Your task to perform on an android device: open app "Adobe Acrobat Reader" (install if not already installed) and go to login screen Image 0: 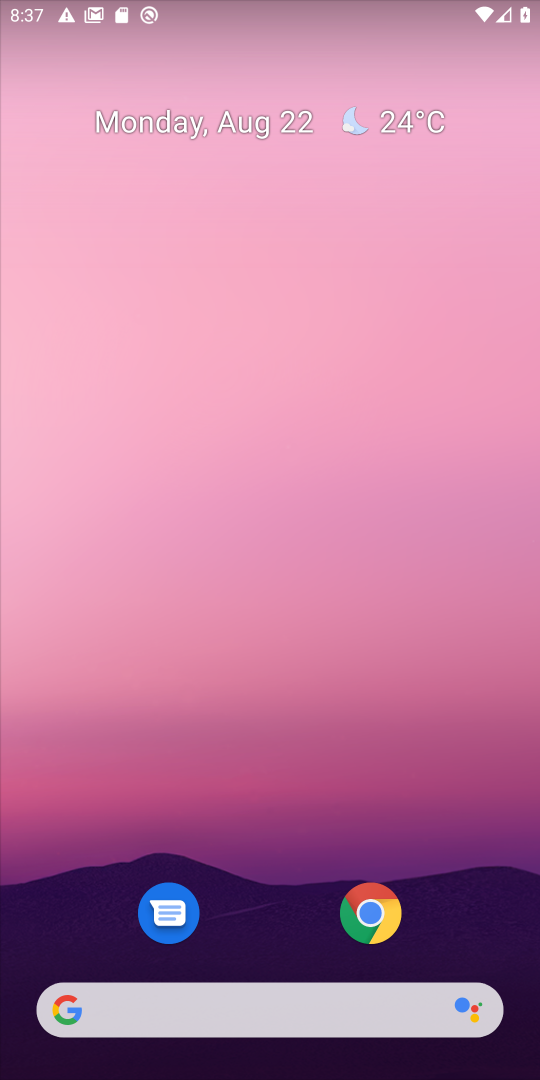
Step 0: drag from (261, 1021) to (336, 142)
Your task to perform on an android device: open app "Adobe Acrobat Reader" (install if not already installed) and go to login screen Image 1: 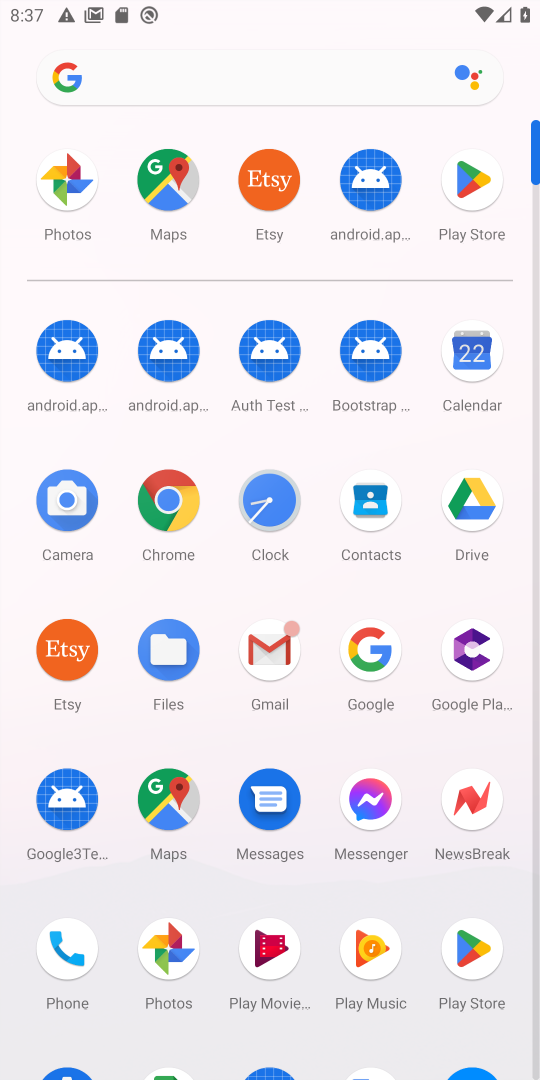
Step 1: click (490, 208)
Your task to perform on an android device: open app "Adobe Acrobat Reader" (install if not already installed) and go to login screen Image 2: 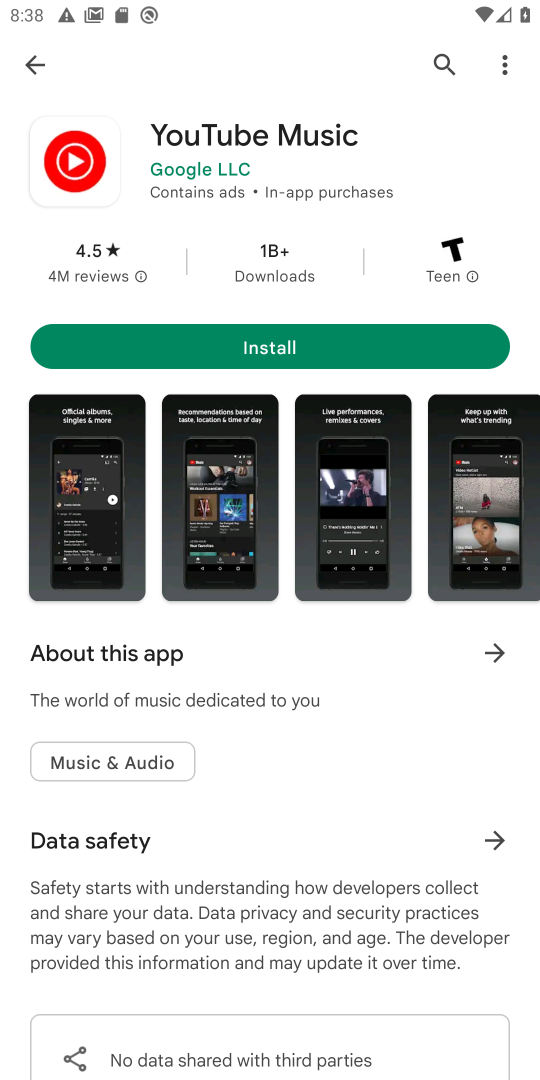
Step 2: click (488, 49)
Your task to perform on an android device: open app "Adobe Acrobat Reader" (install if not already installed) and go to login screen Image 3: 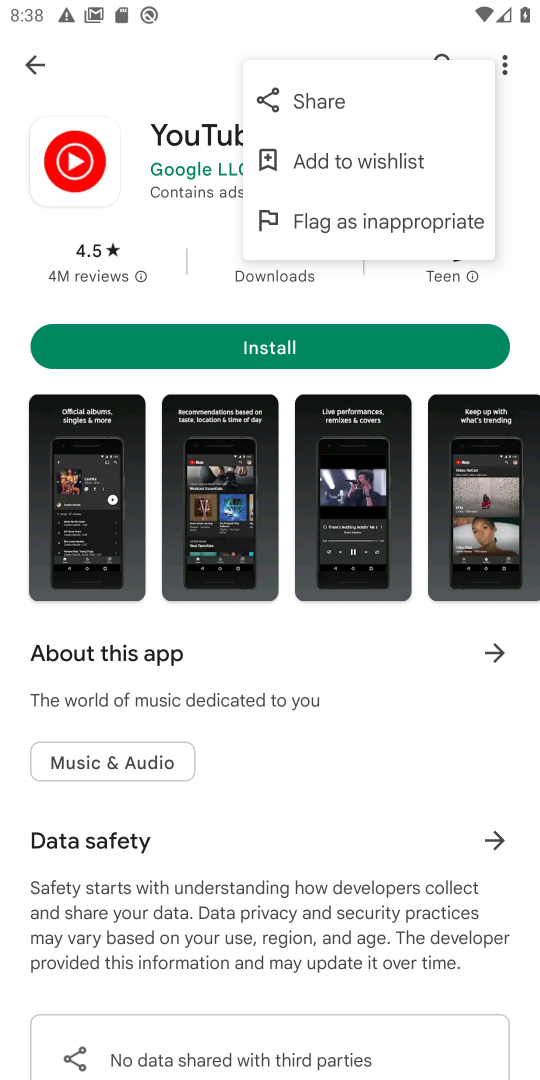
Step 3: click (525, 120)
Your task to perform on an android device: open app "Adobe Acrobat Reader" (install if not already installed) and go to login screen Image 4: 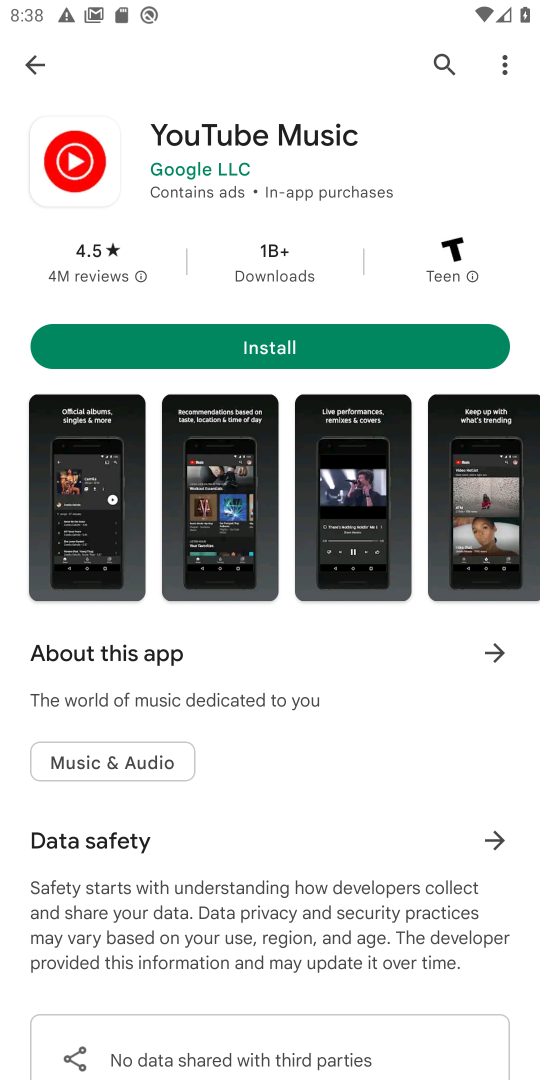
Step 4: click (454, 69)
Your task to perform on an android device: open app "Adobe Acrobat Reader" (install if not already installed) and go to login screen Image 5: 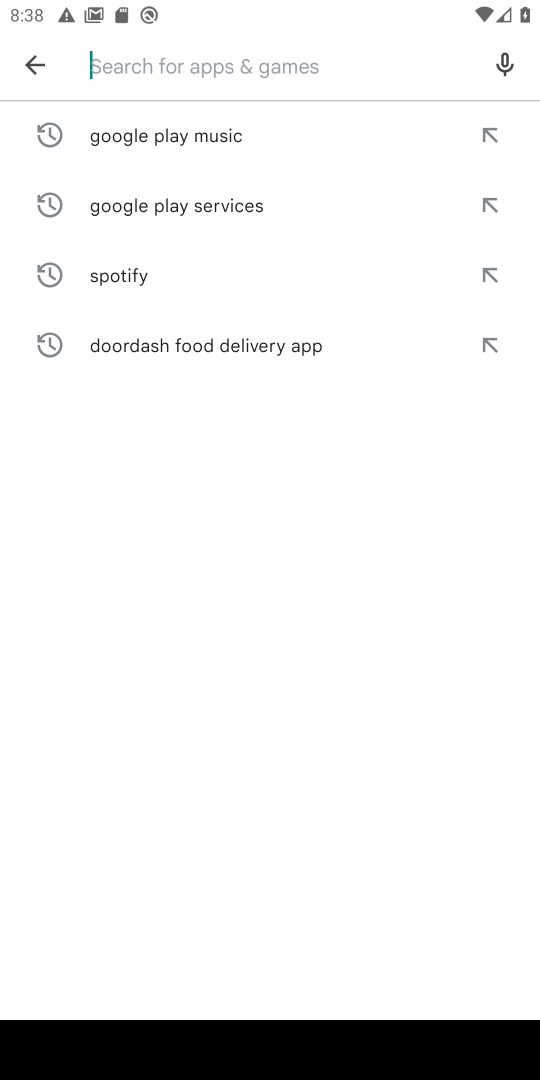
Step 5: type "adobe acrobat"
Your task to perform on an android device: open app "Adobe Acrobat Reader" (install if not already installed) and go to login screen Image 6: 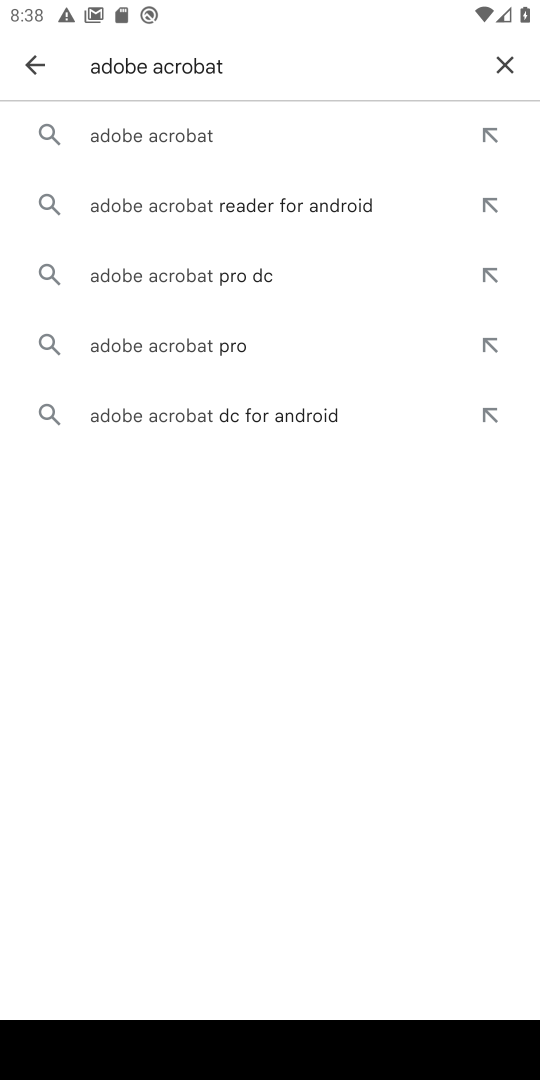
Step 6: click (180, 138)
Your task to perform on an android device: open app "Adobe Acrobat Reader" (install if not already installed) and go to login screen Image 7: 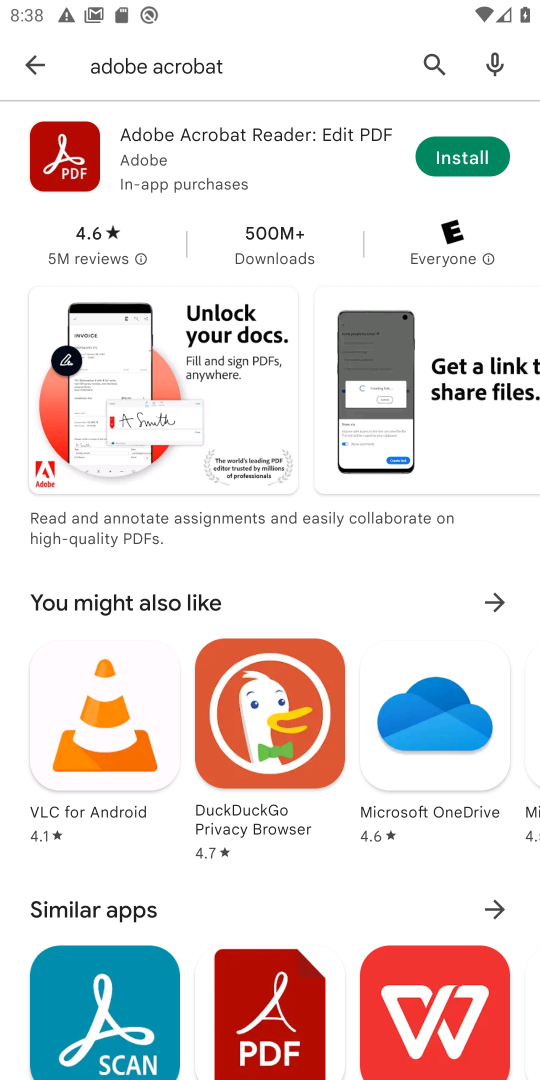
Step 7: click (442, 171)
Your task to perform on an android device: open app "Adobe Acrobat Reader" (install if not already installed) and go to login screen Image 8: 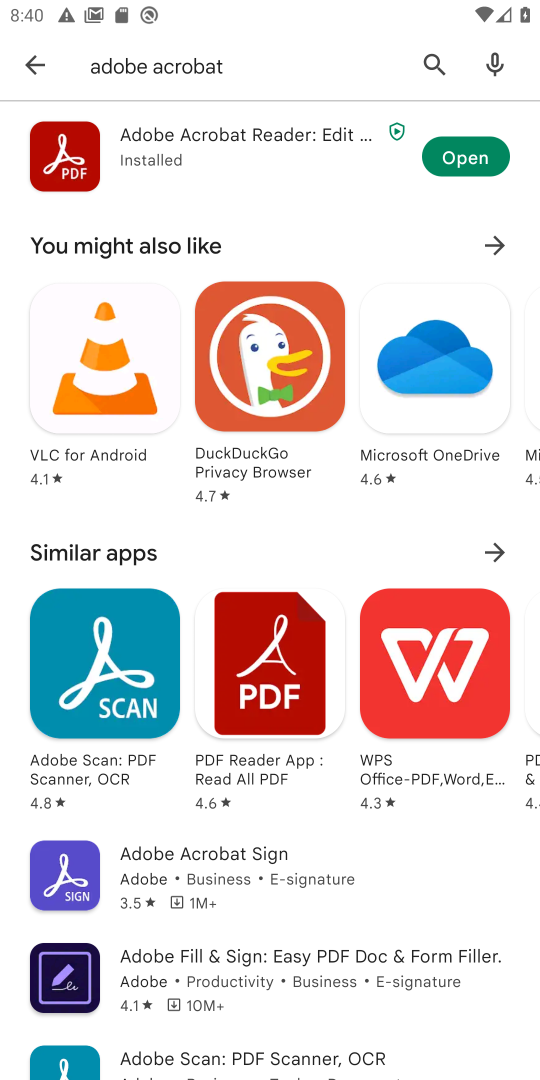
Step 8: click (452, 147)
Your task to perform on an android device: open app "Adobe Acrobat Reader" (install if not already installed) and go to login screen Image 9: 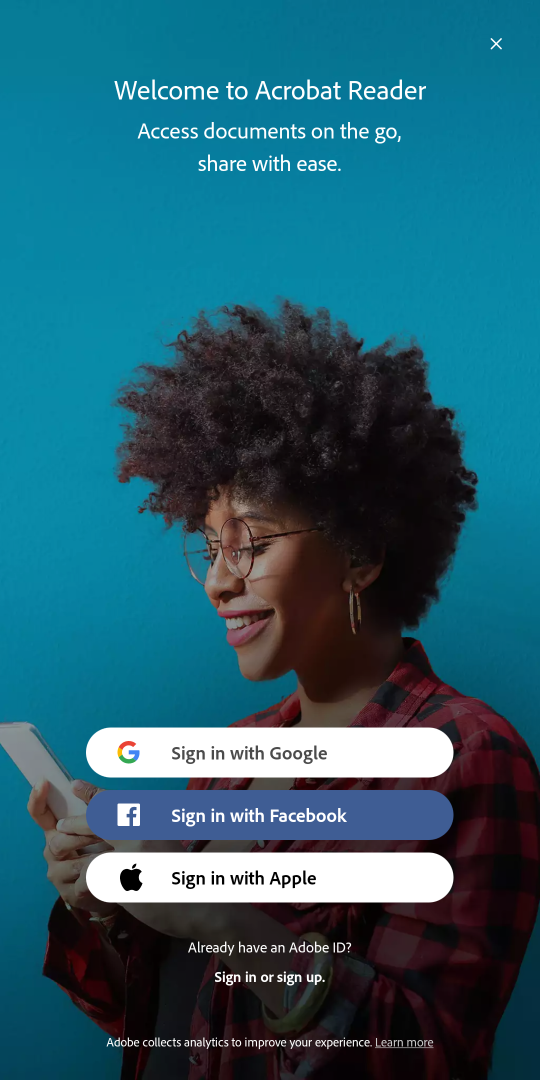
Step 9: click (233, 979)
Your task to perform on an android device: open app "Adobe Acrobat Reader" (install if not already installed) and go to login screen Image 10: 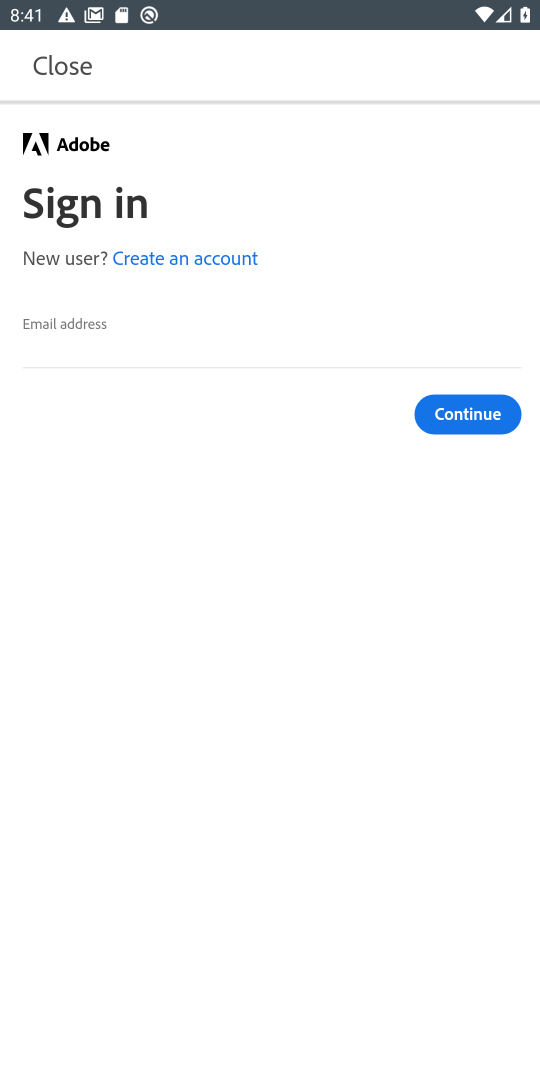
Step 10: task complete